Your task to perform on an android device: When is my next meeting? Image 0: 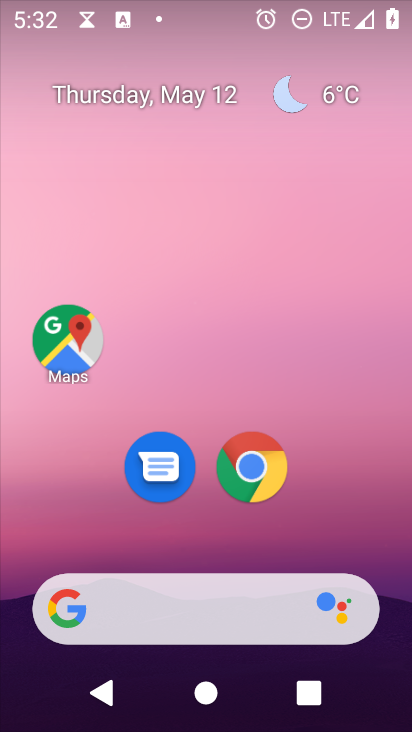
Step 0: drag from (236, 546) to (226, 73)
Your task to perform on an android device: When is my next meeting? Image 1: 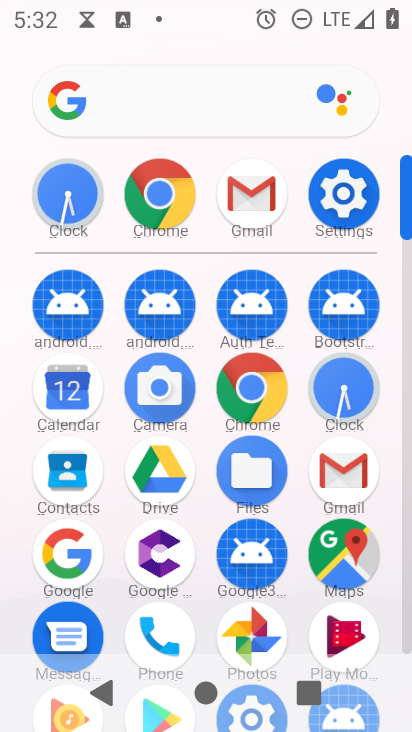
Step 1: click (81, 405)
Your task to perform on an android device: When is my next meeting? Image 2: 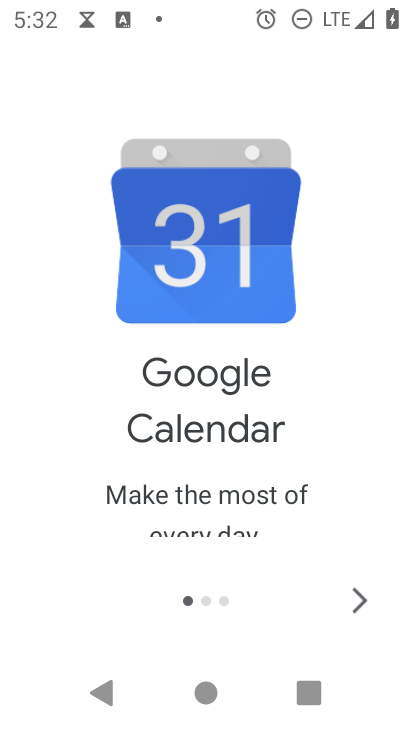
Step 2: click (356, 596)
Your task to perform on an android device: When is my next meeting? Image 3: 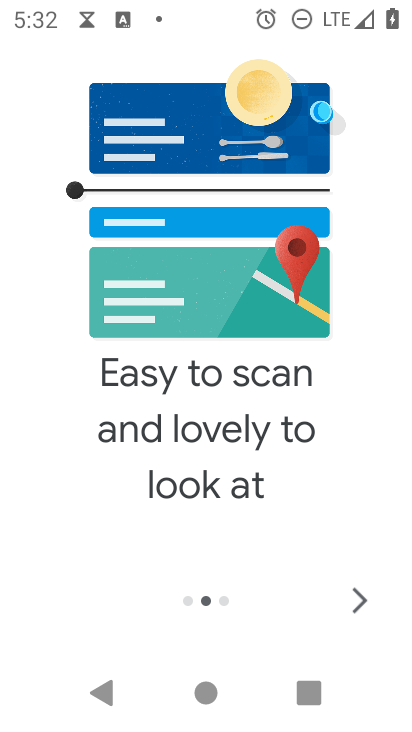
Step 3: click (356, 596)
Your task to perform on an android device: When is my next meeting? Image 4: 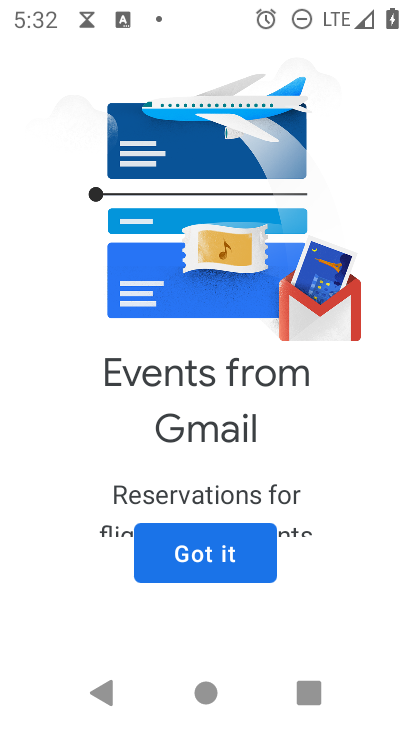
Step 4: click (223, 568)
Your task to perform on an android device: When is my next meeting? Image 5: 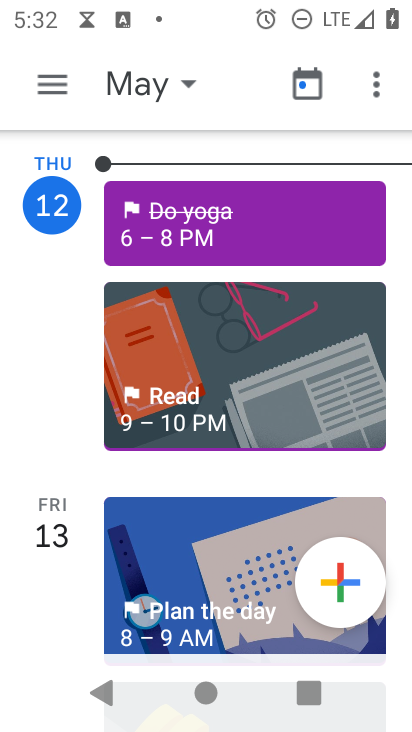
Step 5: click (183, 79)
Your task to perform on an android device: When is my next meeting? Image 6: 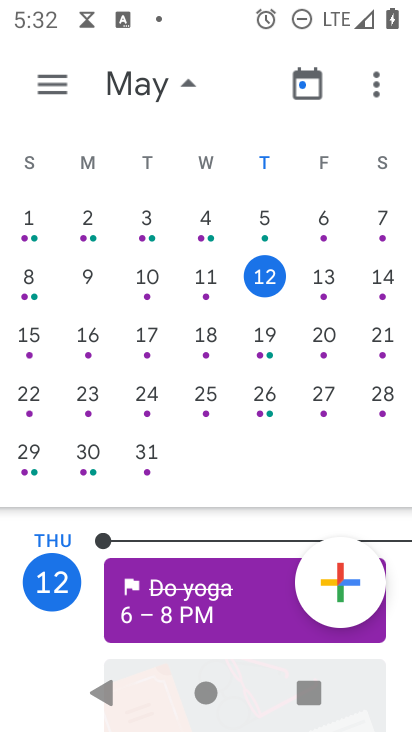
Step 6: click (265, 281)
Your task to perform on an android device: When is my next meeting? Image 7: 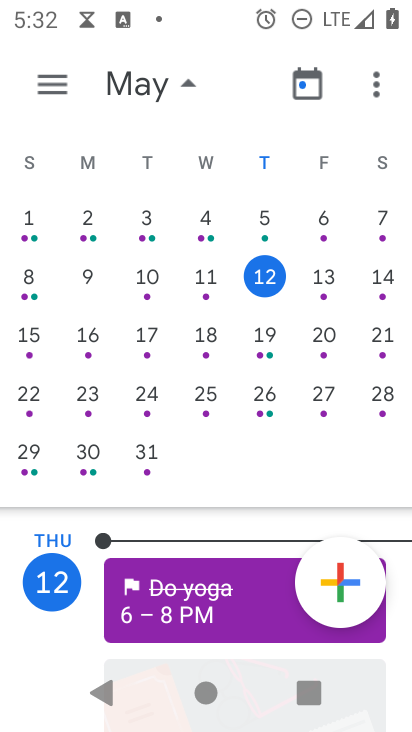
Step 7: click (265, 281)
Your task to perform on an android device: When is my next meeting? Image 8: 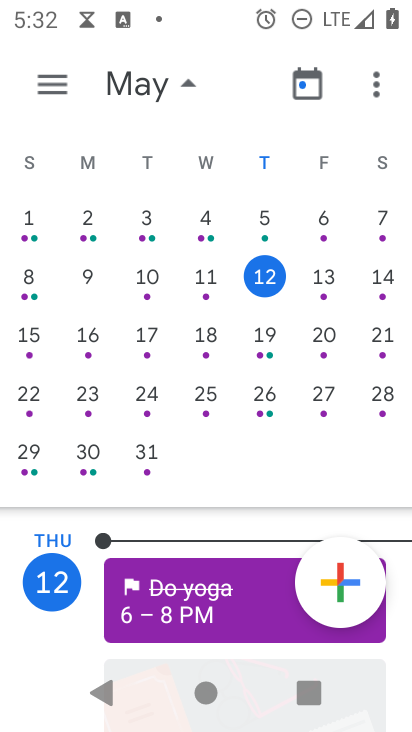
Step 8: task complete